Your task to perform on an android device: What's the weather? Image 0: 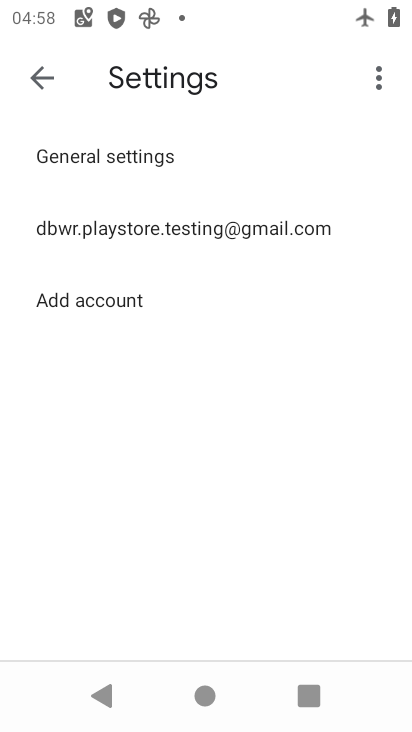
Step 0: press home button
Your task to perform on an android device: What's the weather? Image 1: 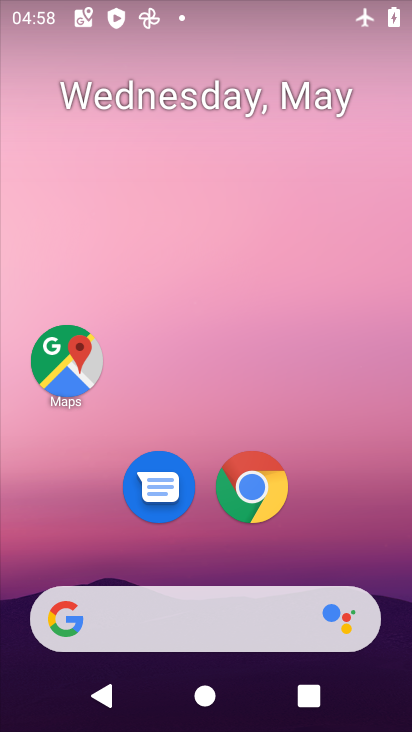
Step 1: click (233, 622)
Your task to perform on an android device: What's the weather? Image 2: 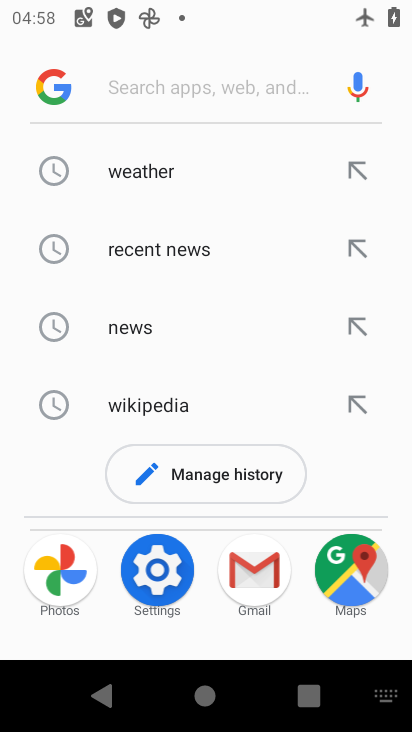
Step 2: click (158, 184)
Your task to perform on an android device: What's the weather? Image 3: 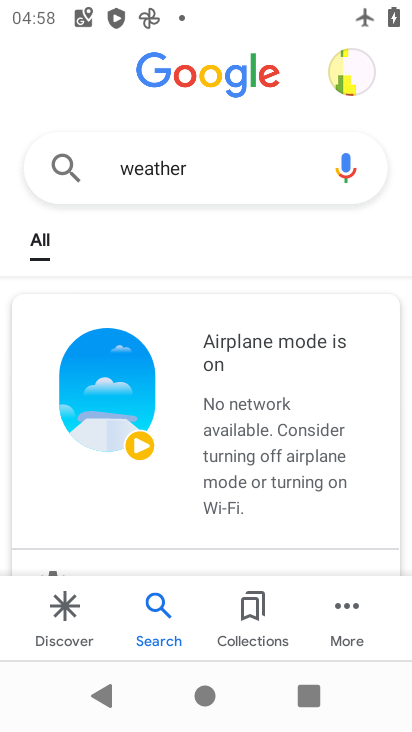
Step 3: task complete